Your task to perform on an android device: Search for seafood restaurants on Google Maps Image 0: 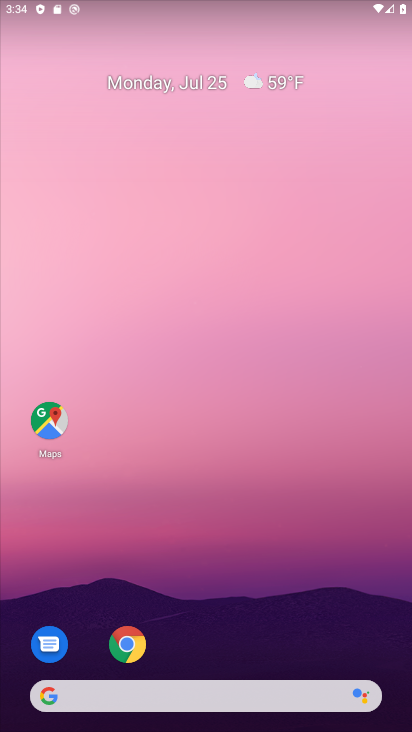
Step 0: drag from (220, 604) to (230, 91)
Your task to perform on an android device: Search for seafood restaurants on Google Maps Image 1: 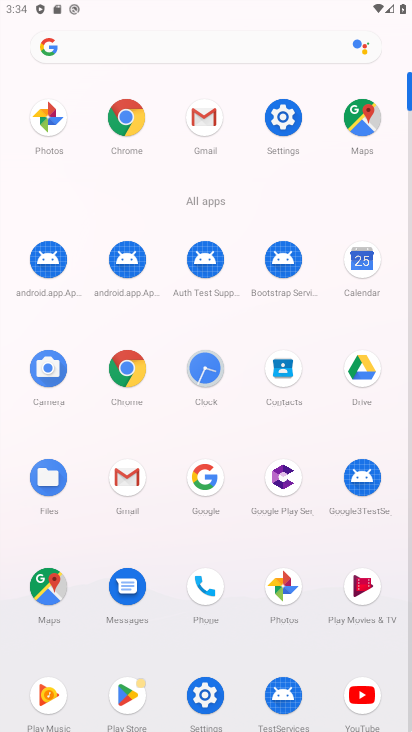
Step 1: drag from (249, 394) to (249, 231)
Your task to perform on an android device: Search for seafood restaurants on Google Maps Image 2: 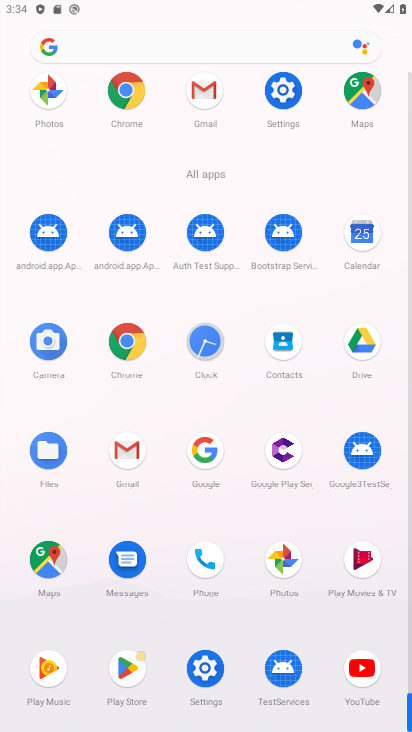
Step 2: click (358, 119)
Your task to perform on an android device: Search for seafood restaurants on Google Maps Image 3: 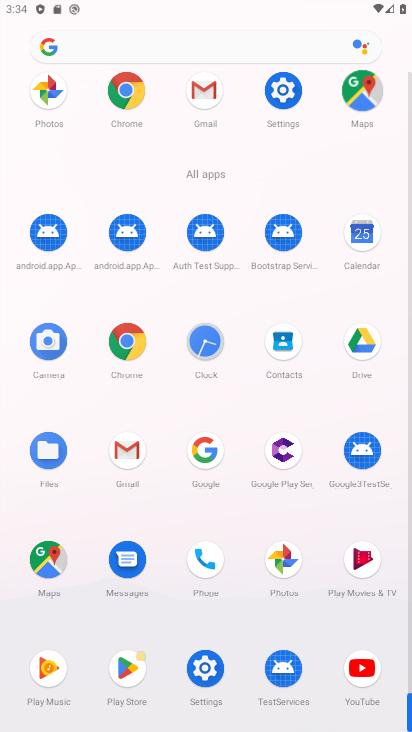
Step 3: click (358, 104)
Your task to perform on an android device: Search for seafood restaurants on Google Maps Image 4: 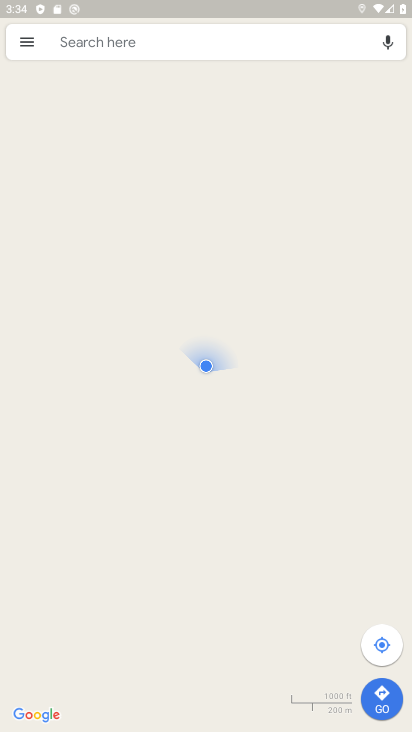
Step 4: click (105, 47)
Your task to perform on an android device: Search for seafood restaurants on Google Maps Image 5: 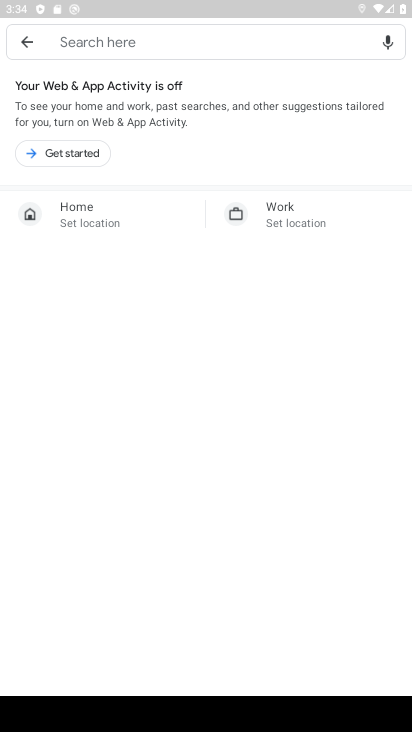
Step 5: click (113, 38)
Your task to perform on an android device: Search for seafood restaurants on Google Maps Image 6: 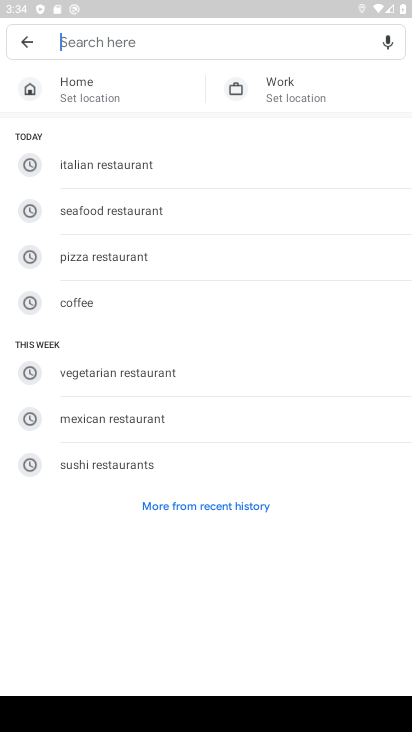
Step 6: click (81, 201)
Your task to perform on an android device: Search for seafood restaurants on Google Maps Image 7: 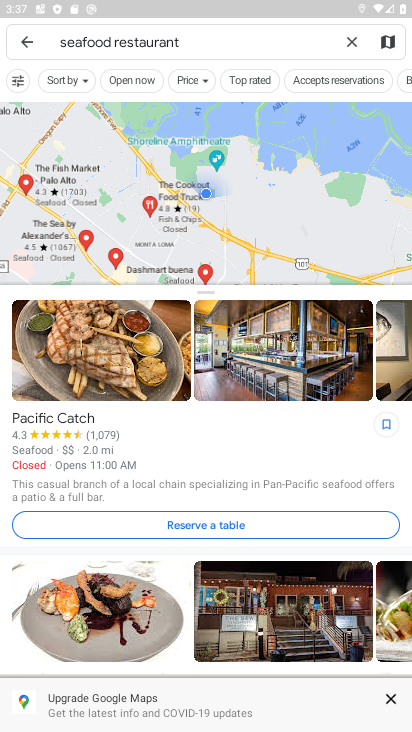
Step 7: task complete